Your task to perform on an android device: turn on location history Image 0: 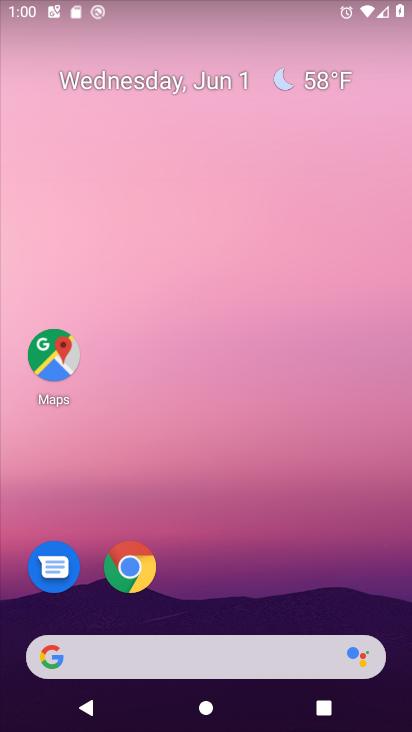
Step 0: drag from (220, 576) to (247, 46)
Your task to perform on an android device: turn on location history Image 1: 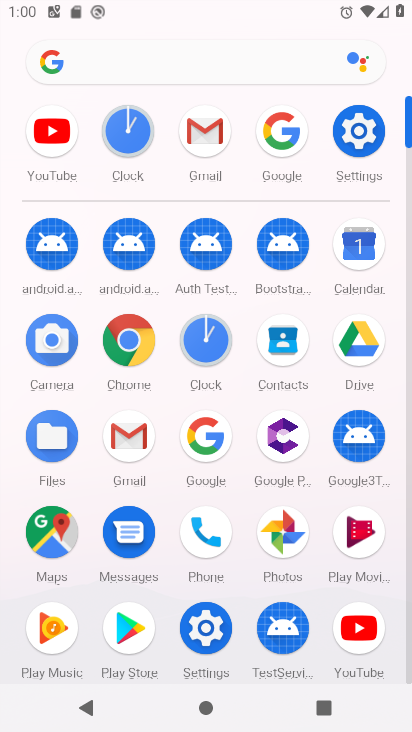
Step 1: click (361, 128)
Your task to perform on an android device: turn on location history Image 2: 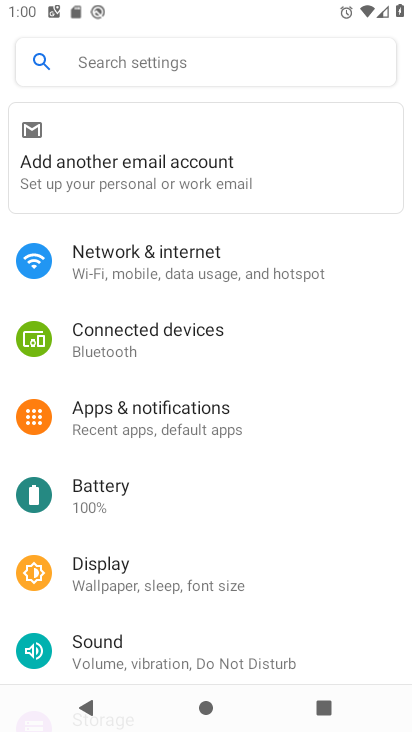
Step 2: drag from (210, 624) to (239, 1)
Your task to perform on an android device: turn on location history Image 3: 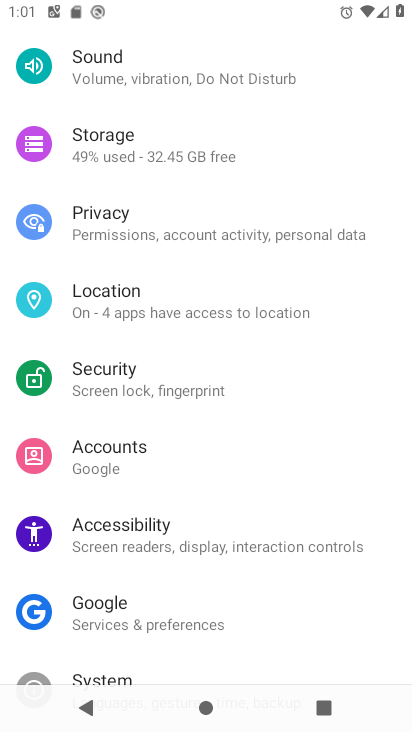
Step 3: click (107, 309)
Your task to perform on an android device: turn on location history Image 4: 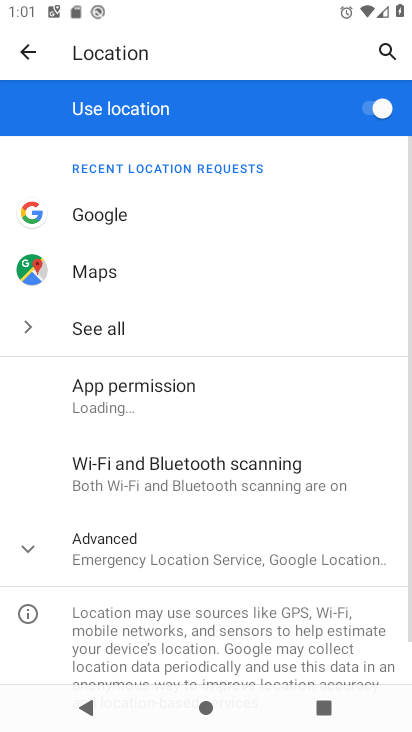
Step 4: click (115, 568)
Your task to perform on an android device: turn on location history Image 5: 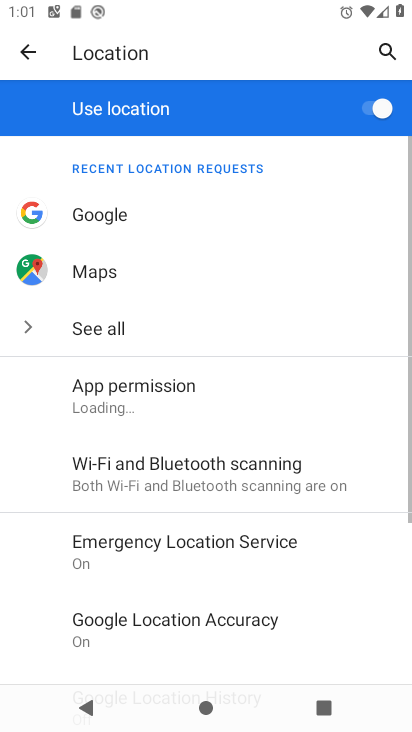
Step 5: drag from (309, 532) to (255, 159)
Your task to perform on an android device: turn on location history Image 6: 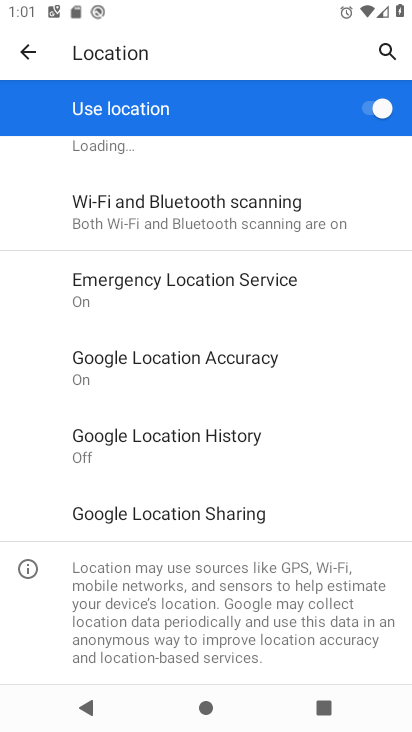
Step 6: click (228, 433)
Your task to perform on an android device: turn on location history Image 7: 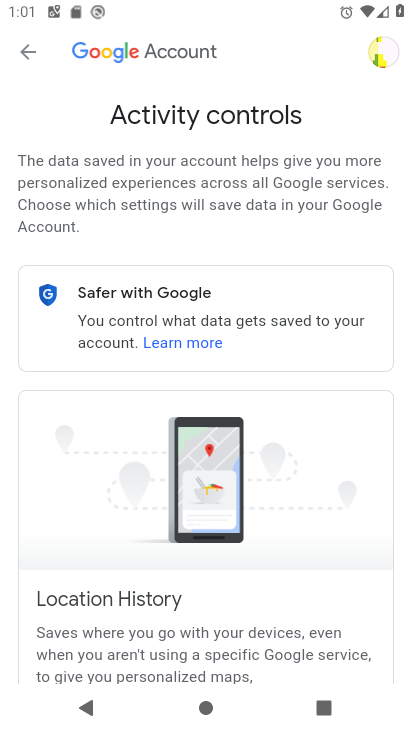
Step 7: task complete